Your task to perform on an android device: toggle data saver in the chrome app Image 0: 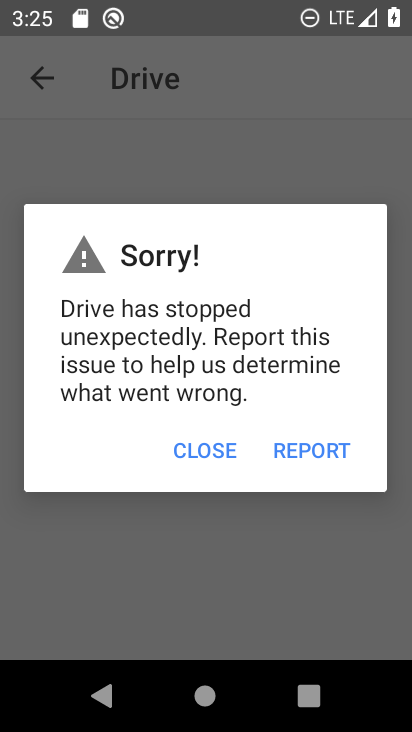
Step 0: press back button
Your task to perform on an android device: toggle data saver in the chrome app Image 1: 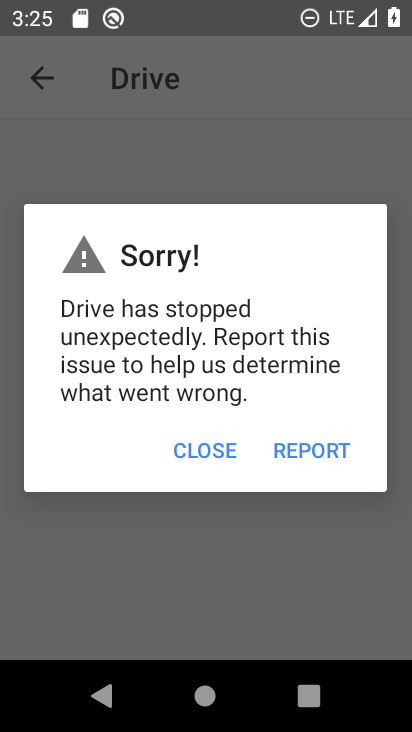
Step 1: press home button
Your task to perform on an android device: toggle data saver in the chrome app Image 2: 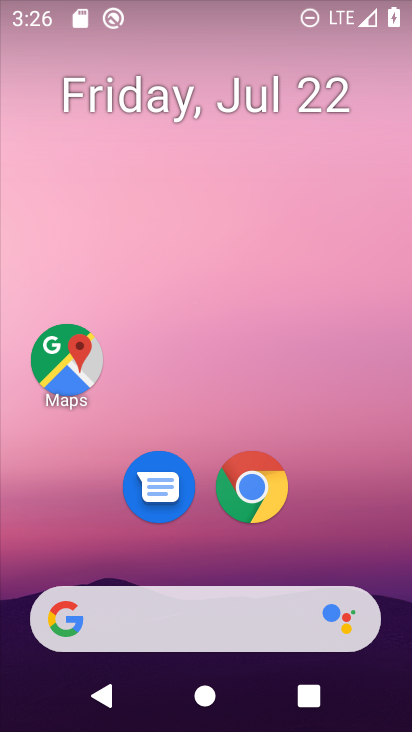
Step 2: click (243, 480)
Your task to perform on an android device: toggle data saver in the chrome app Image 3: 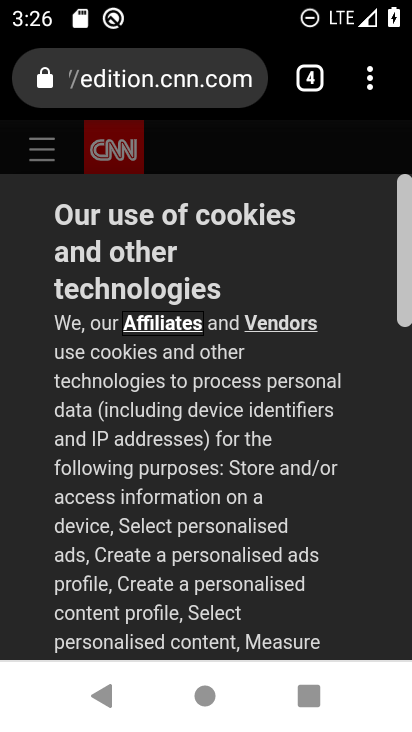
Step 3: drag from (369, 73) to (116, 547)
Your task to perform on an android device: toggle data saver in the chrome app Image 4: 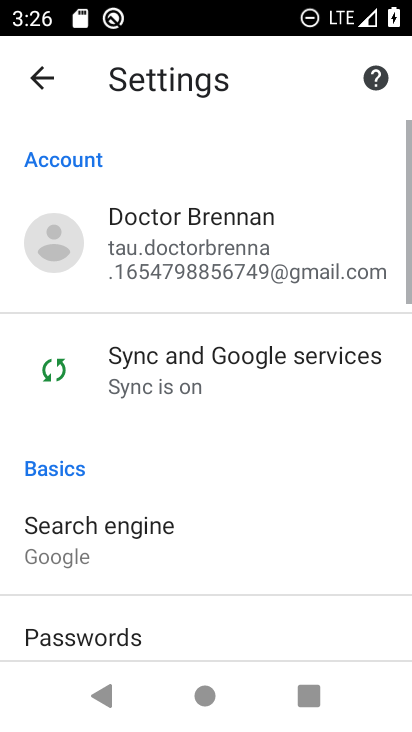
Step 4: drag from (167, 561) to (258, 23)
Your task to perform on an android device: toggle data saver in the chrome app Image 5: 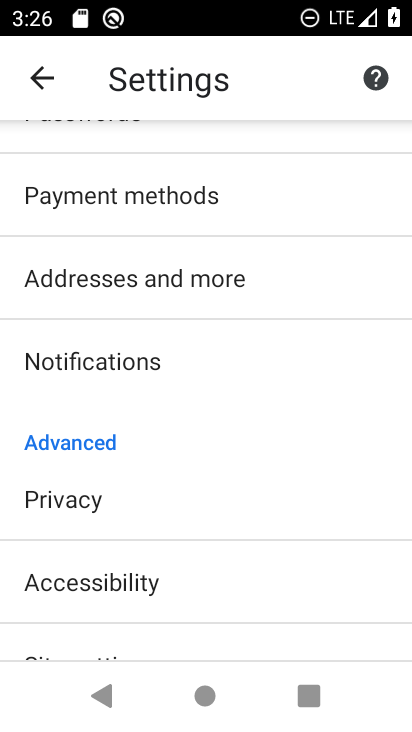
Step 5: drag from (146, 566) to (261, 91)
Your task to perform on an android device: toggle data saver in the chrome app Image 6: 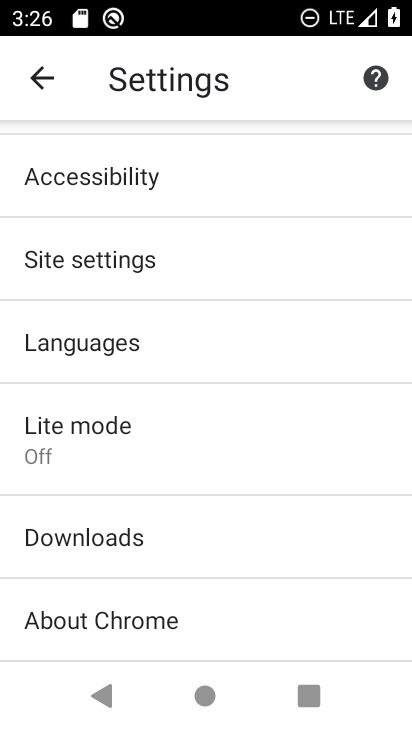
Step 6: click (123, 455)
Your task to perform on an android device: toggle data saver in the chrome app Image 7: 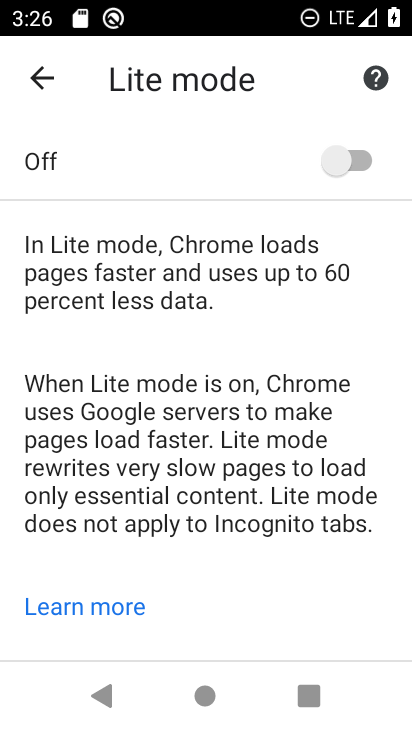
Step 7: click (340, 159)
Your task to perform on an android device: toggle data saver in the chrome app Image 8: 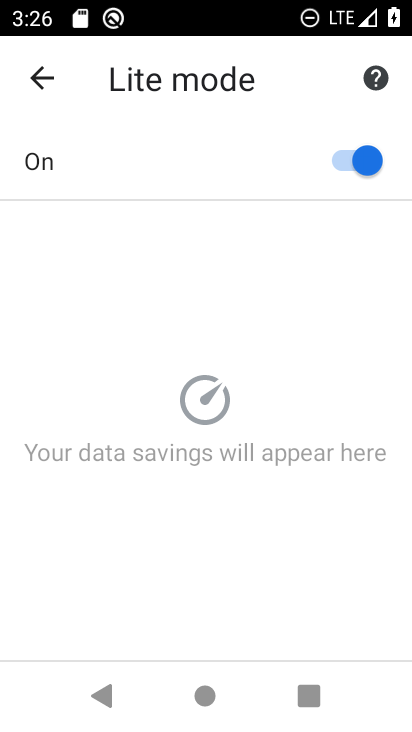
Step 8: task complete